Your task to perform on an android device: check battery use Image 0: 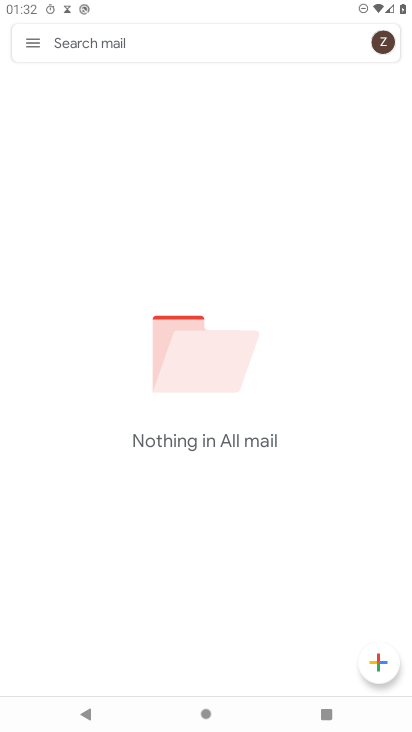
Step 0: press home button
Your task to perform on an android device: check battery use Image 1: 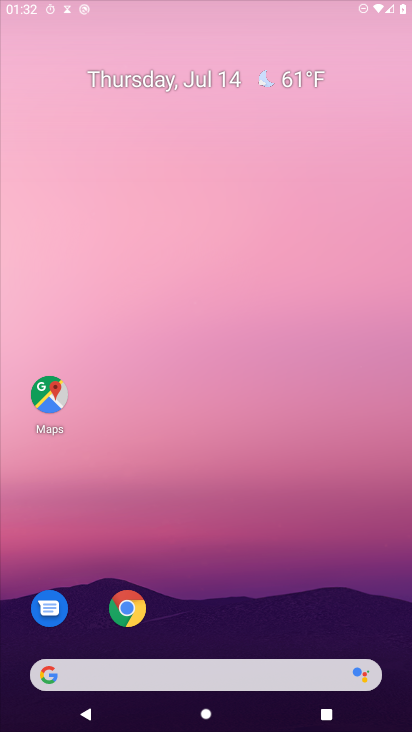
Step 1: drag from (264, 531) to (328, 51)
Your task to perform on an android device: check battery use Image 2: 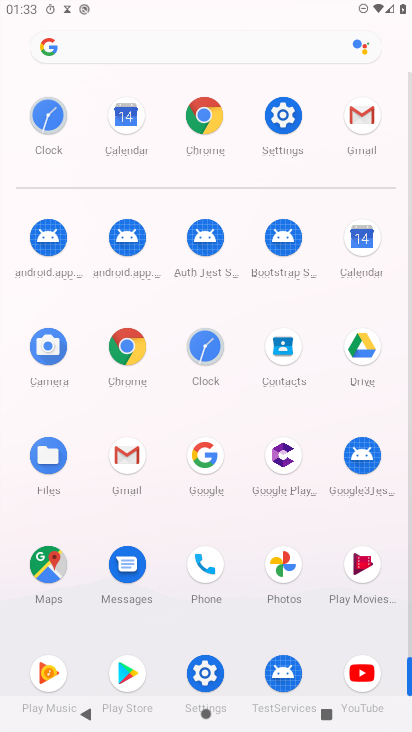
Step 2: click (274, 113)
Your task to perform on an android device: check battery use Image 3: 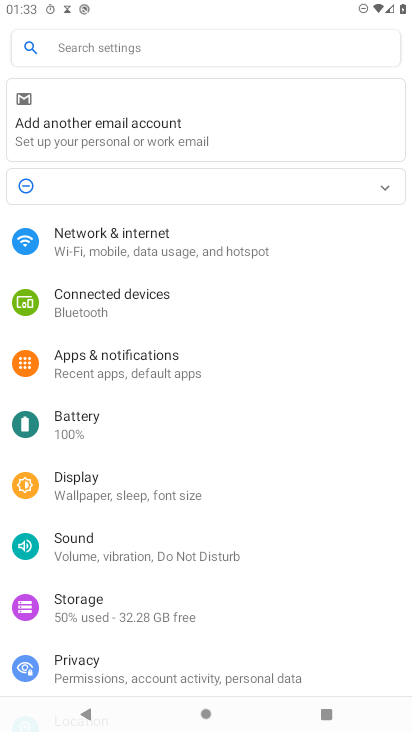
Step 3: click (122, 419)
Your task to perform on an android device: check battery use Image 4: 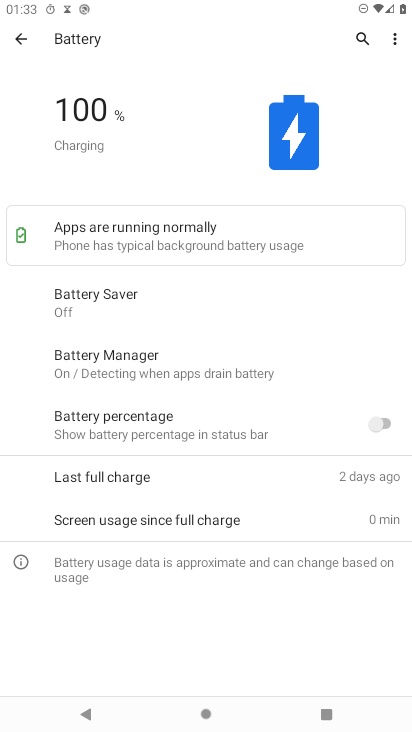
Step 4: task complete